Your task to perform on an android device: turn on javascript in the chrome app Image 0: 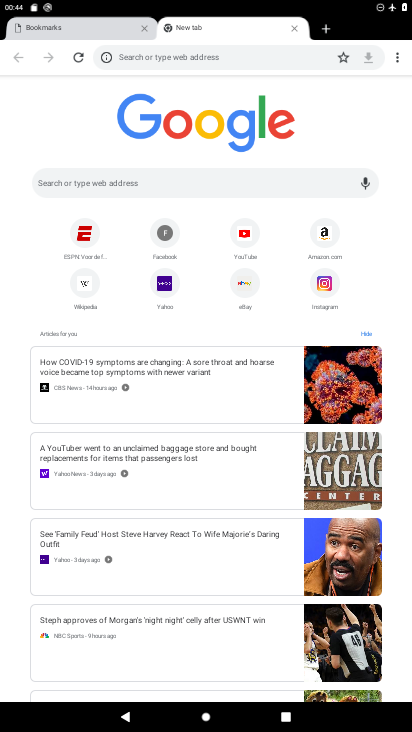
Step 0: drag from (393, 57) to (294, 260)
Your task to perform on an android device: turn on javascript in the chrome app Image 1: 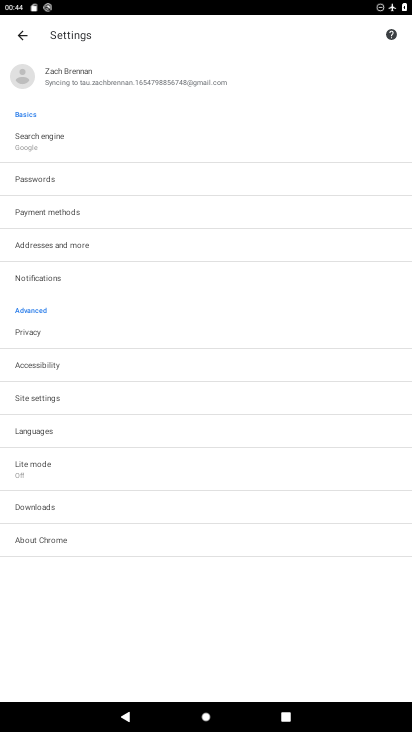
Step 1: click (53, 390)
Your task to perform on an android device: turn on javascript in the chrome app Image 2: 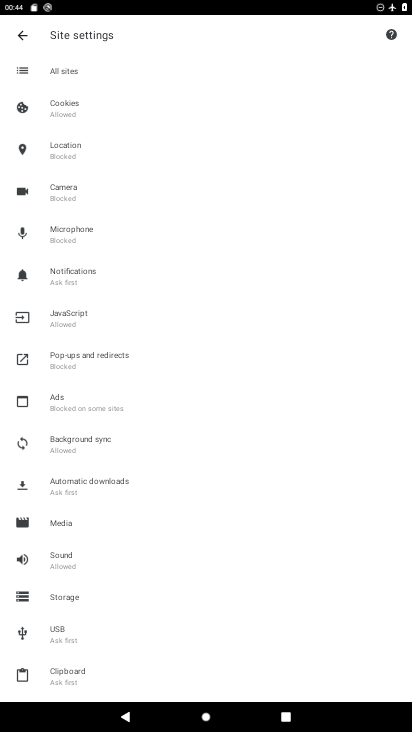
Step 2: click (98, 315)
Your task to perform on an android device: turn on javascript in the chrome app Image 3: 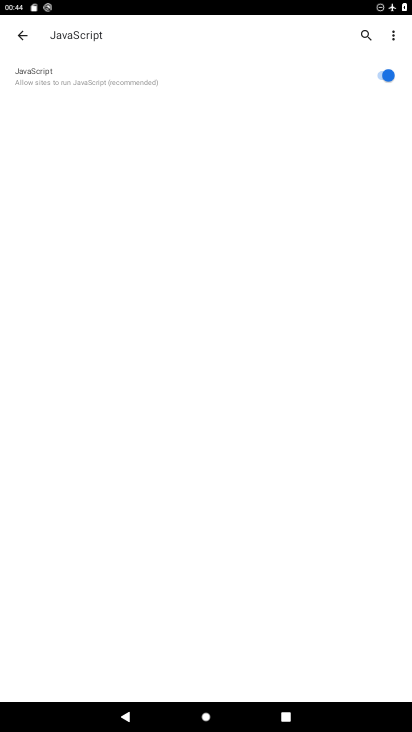
Step 3: task complete